Your task to perform on an android device: set default search engine in the chrome app Image 0: 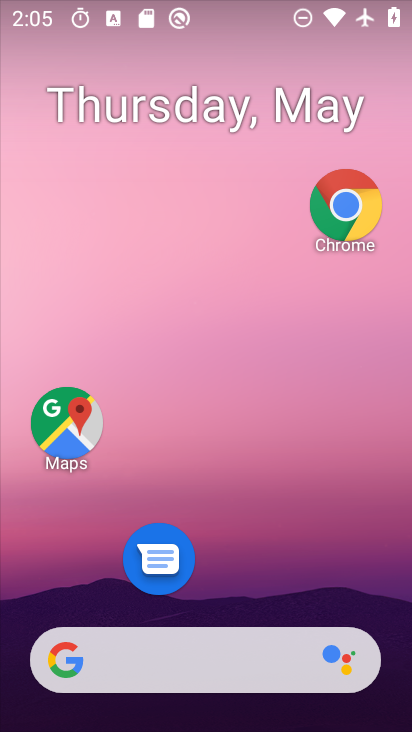
Step 0: drag from (229, 590) to (215, 15)
Your task to perform on an android device: set default search engine in the chrome app Image 1: 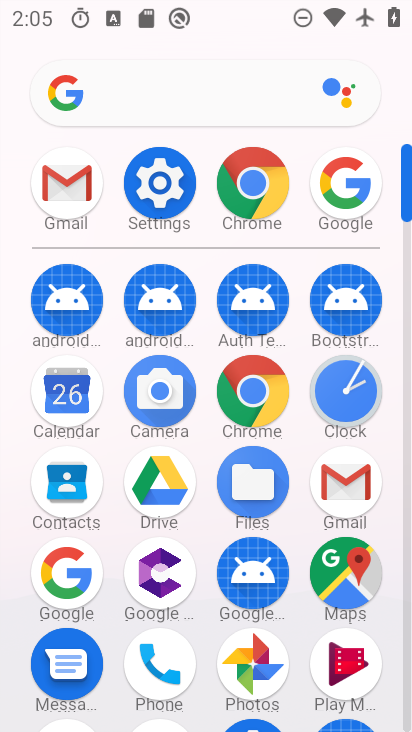
Step 1: click (250, 191)
Your task to perform on an android device: set default search engine in the chrome app Image 2: 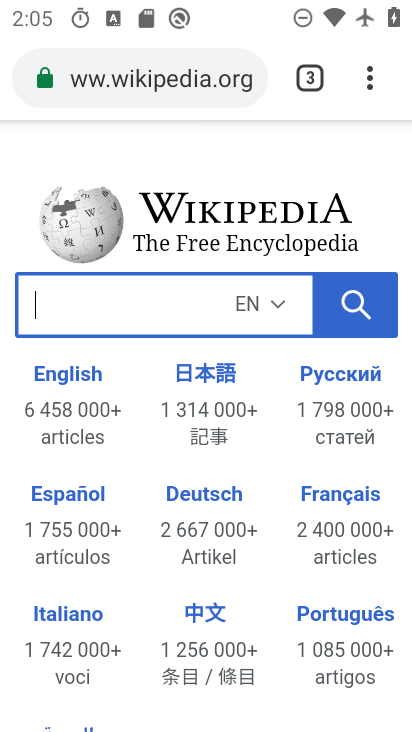
Step 2: click (361, 86)
Your task to perform on an android device: set default search engine in the chrome app Image 3: 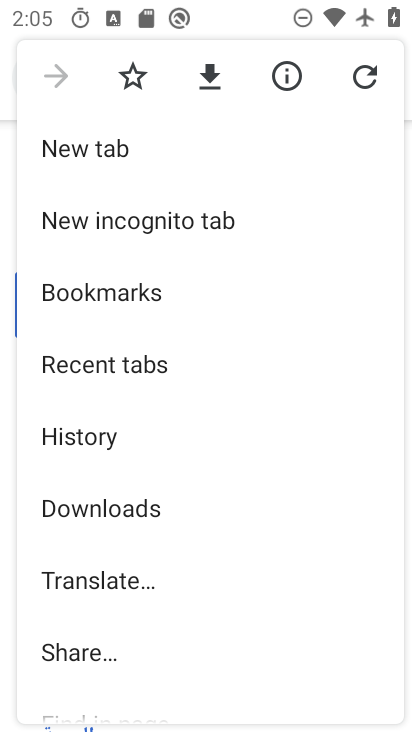
Step 3: drag from (188, 631) to (244, 247)
Your task to perform on an android device: set default search engine in the chrome app Image 4: 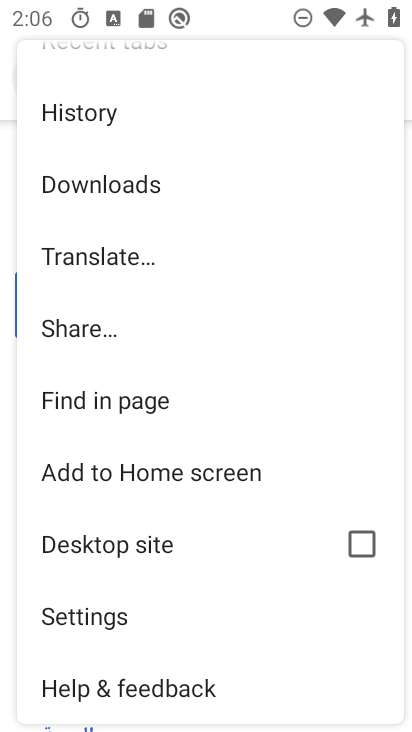
Step 4: click (144, 615)
Your task to perform on an android device: set default search engine in the chrome app Image 5: 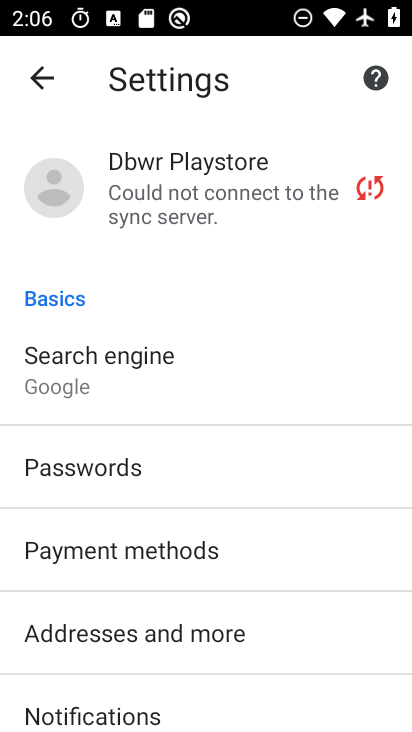
Step 5: click (130, 381)
Your task to perform on an android device: set default search engine in the chrome app Image 6: 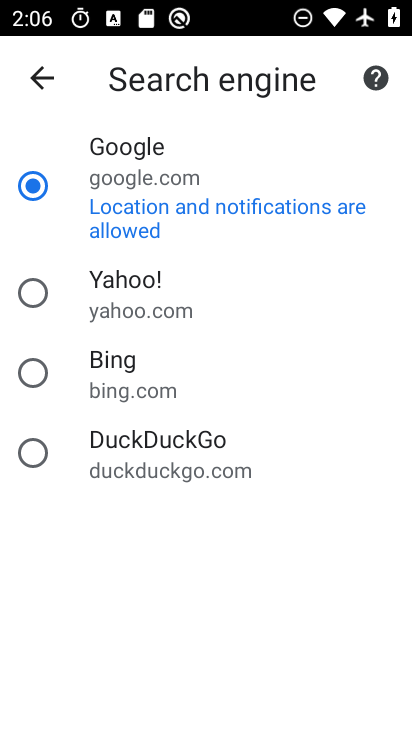
Step 6: task complete